Your task to perform on an android device: See recent photos Image 0: 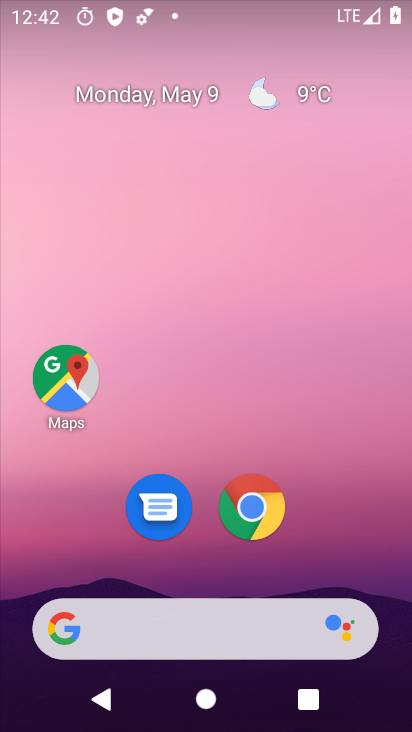
Step 0: drag from (246, 726) to (248, 252)
Your task to perform on an android device: See recent photos Image 1: 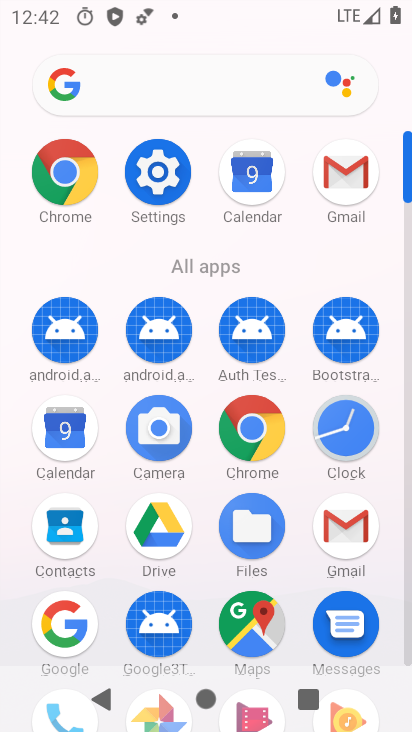
Step 1: drag from (209, 621) to (203, 301)
Your task to perform on an android device: See recent photos Image 2: 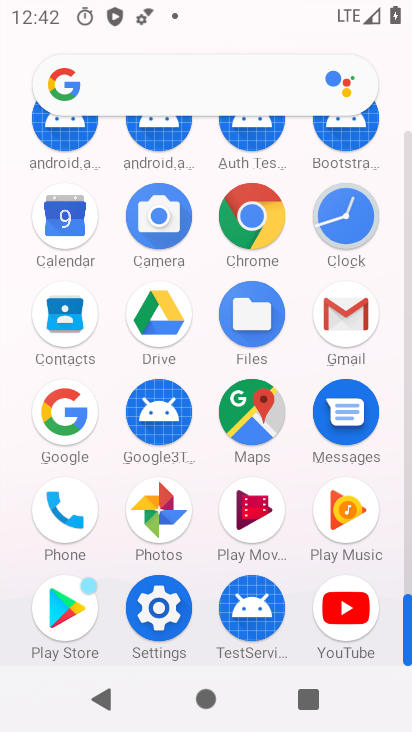
Step 2: click (160, 515)
Your task to perform on an android device: See recent photos Image 3: 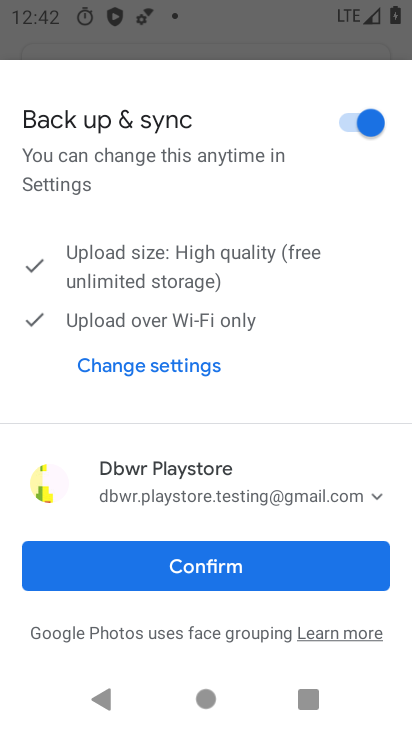
Step 3: click (223, 560)
Your task to perform on an android device: See recent photos Image 4: 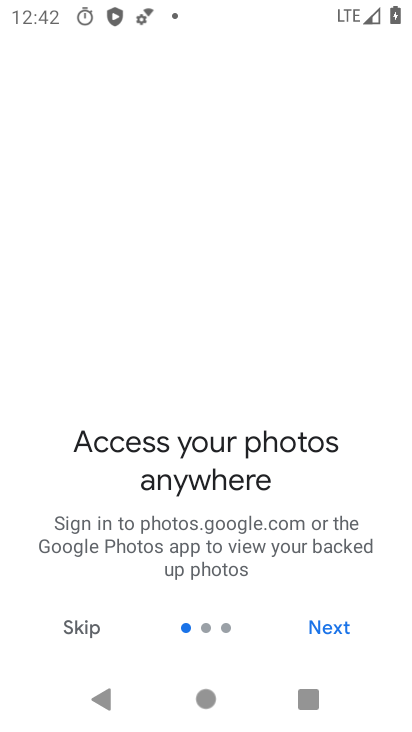
Step 4: click (61, 246)
Your task to perform on an android device: See recent photos Image 5: 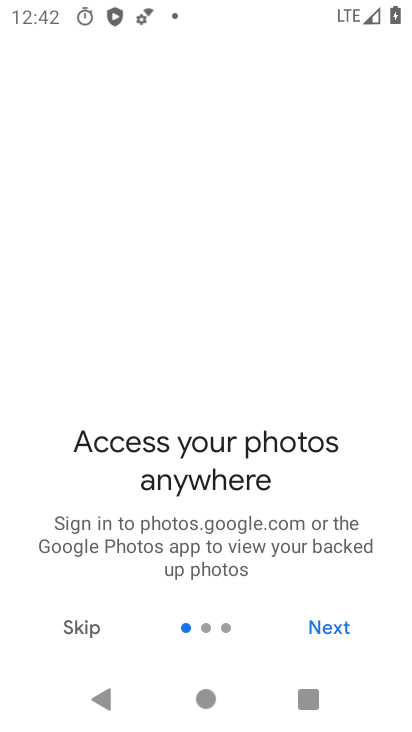
Step 5: click (328, 621)
Your task to perform on an android device: See recent photos Image 6: 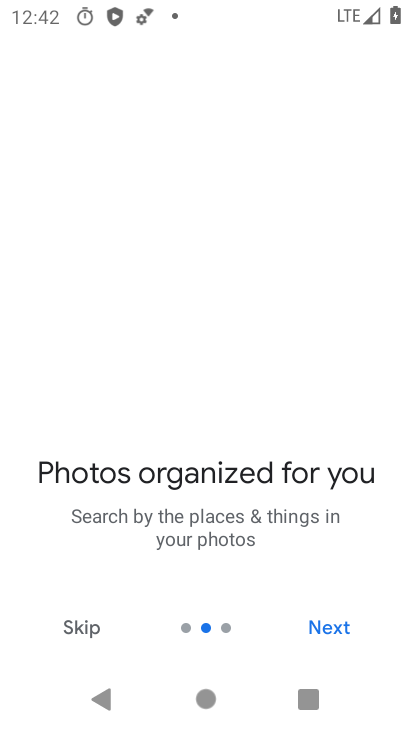
Step 6: click (327, 625)
Your task to perform on an android device: See recent photos Image 7: 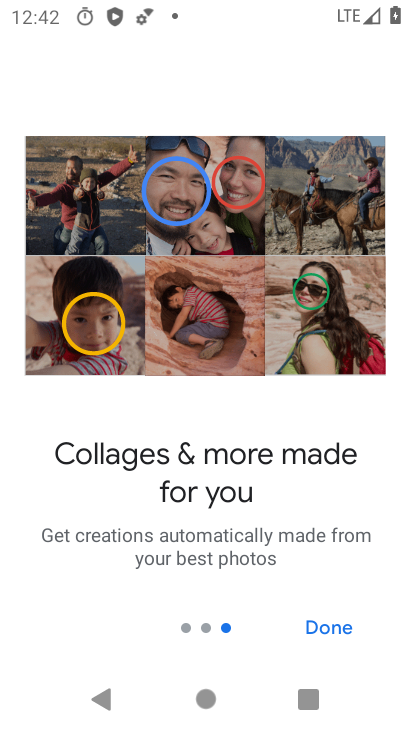
Step 7: click (325, 622)
Your task to perform on an android device: See recent photos Image 8: 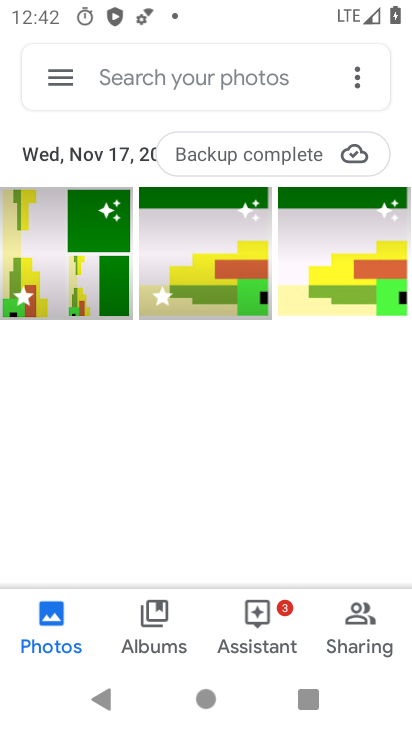
Step 8: click (35, 286)
Your task to perform on an android device: See recent photos Image 9: 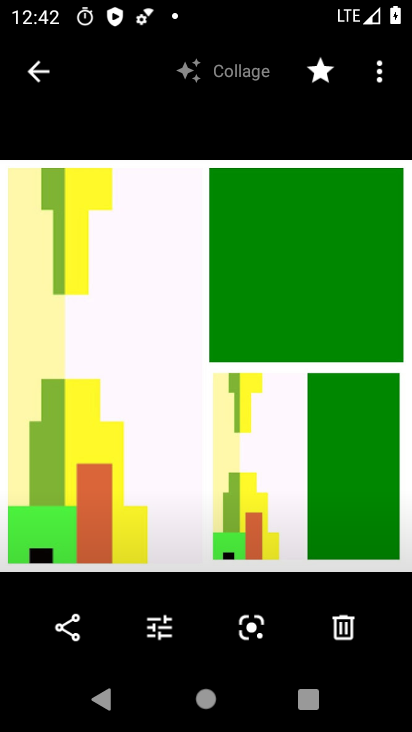
Step 9: task complete